Your task to perform on an android device: Show me the alarms in the clock app Image 0: 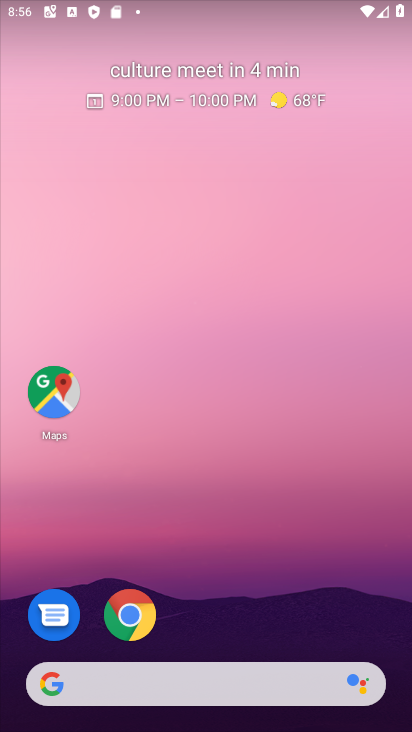
Step 0: drag from (393, 711) to (381, 63)
Your task to perform on an android device: Show me the alarms in the clock app Image 1: 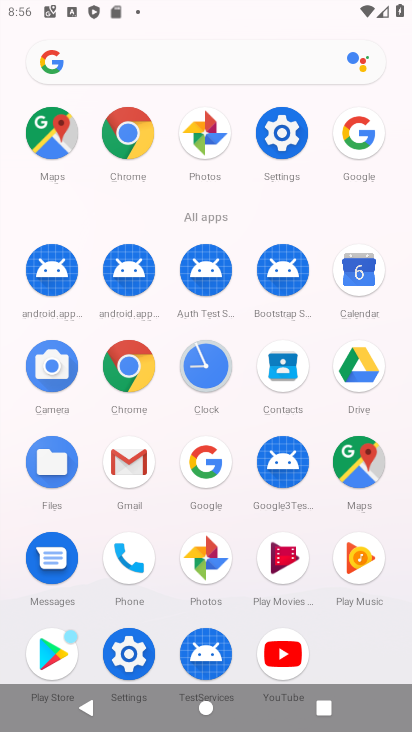
Step 1: click (290, 122)
Your task to perform on an android device: Show me the alarms in the clock app Image 2: 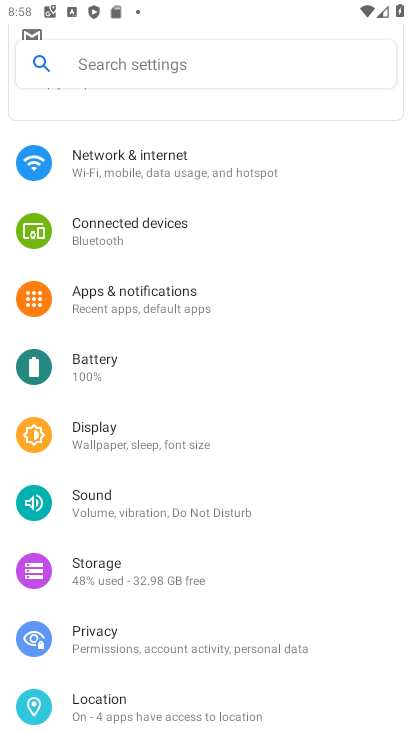
Step 2: press home button
Your task to perform on an android device: Show me the alarms in the clock app Image 3: 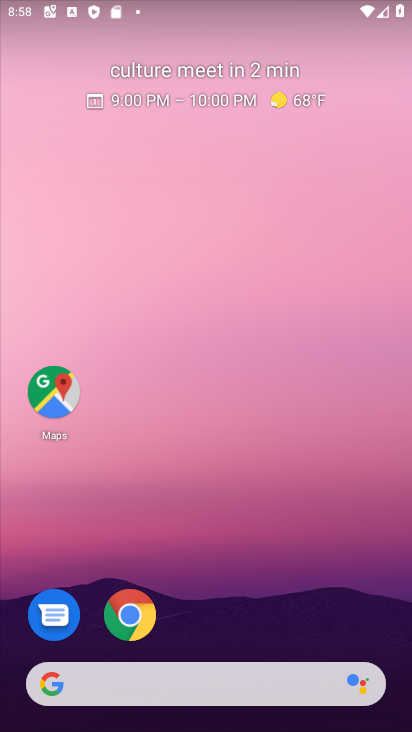
Step 3: drag from (402, 716) to (367, 131)
Your task to perform on an android device: Show me the alarms in the clock app Image 4: 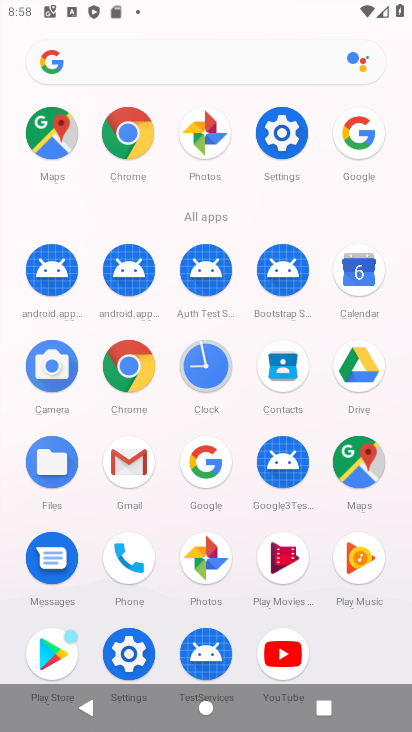
Step 4: click (198, 358)
Your task to perform on an android device: Show me the alarms in the clock app Image 5: 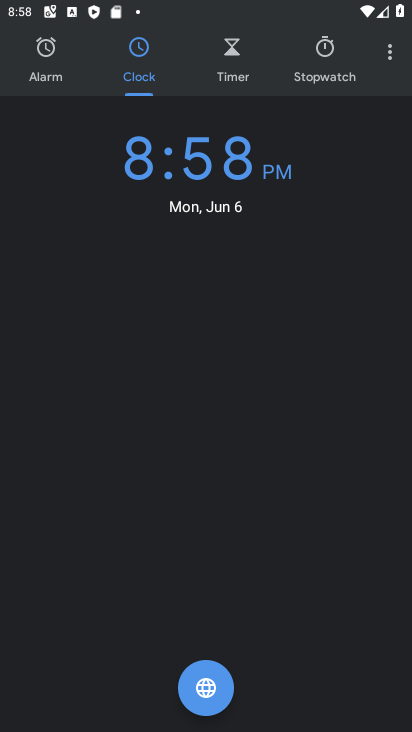
Step 5: click (35, 58)
Your task to perform on an android device: Show me the alarms in the clock app Image 6: 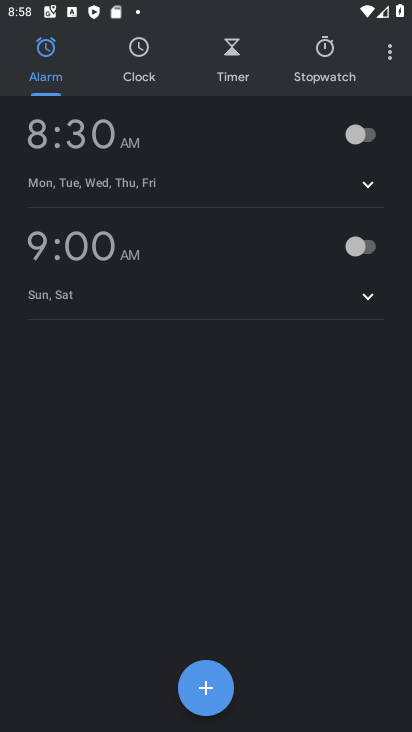
Step 6: task complete